Your task to perform on an android device: Go to accessibility settings Image 0: 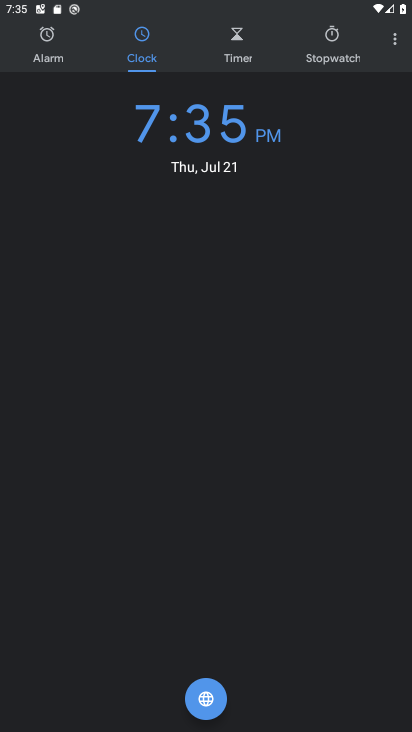
Step 0: press home button
Your task to perform on an android device: Go to accessibility settings Image 1: 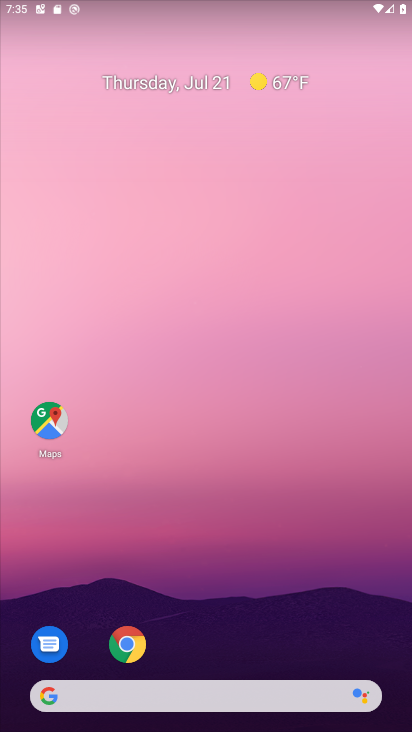
Step 1: drag from (258, 639) to (120, 3)
Your task to perform on an android device: Go to accessibility settings Image 2: 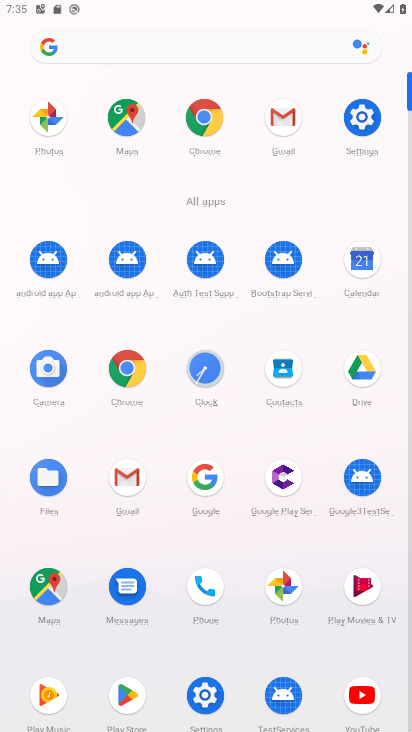
Step 2: click (203, 686)
Your task to perform on an android device: Go to accessibility settings Image 3: 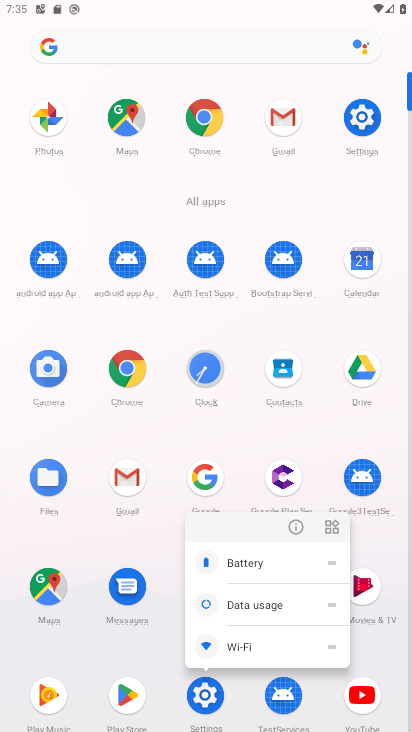
Step 3: click (205, 692)
Your task to perform on an android device: Go to accessibility settings Image 4: 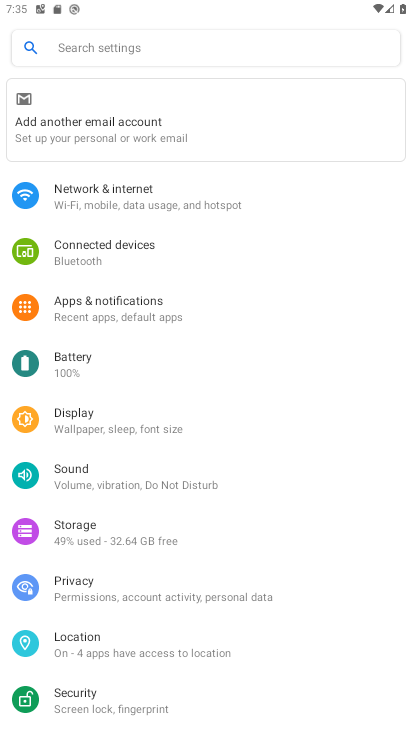
Step 4: drag from (126, 629) to (126, 442)
Your task to perform on an android device: Go to accessibility settings Image 5: 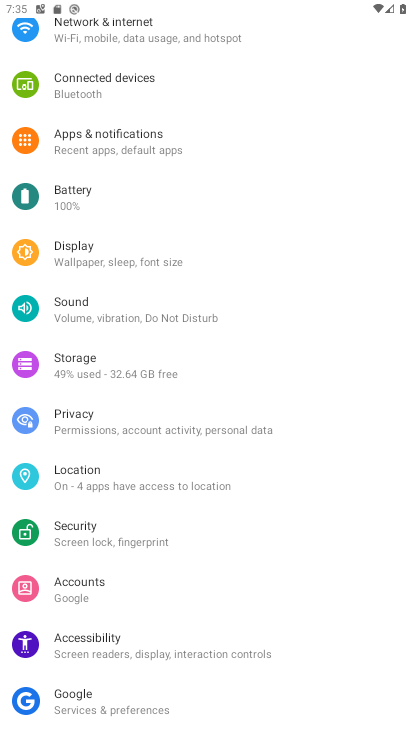
Step 5: click (125, 639)
Your task to perform on an android device: Go to accessibility settings Image 6: 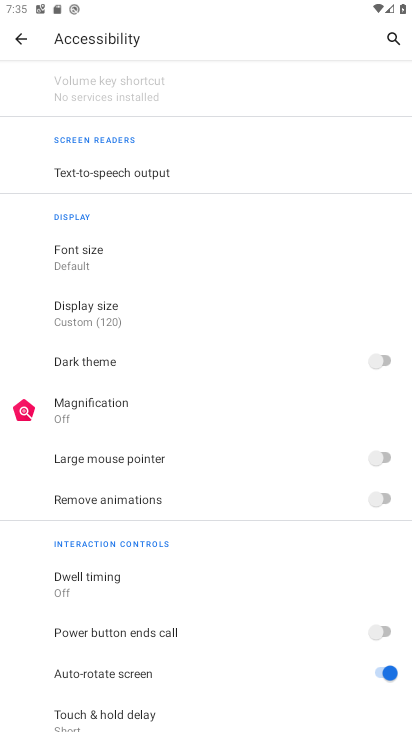
Step 6: task complete